Your task to perform on an android device: change the upload size in google photos Image 0: 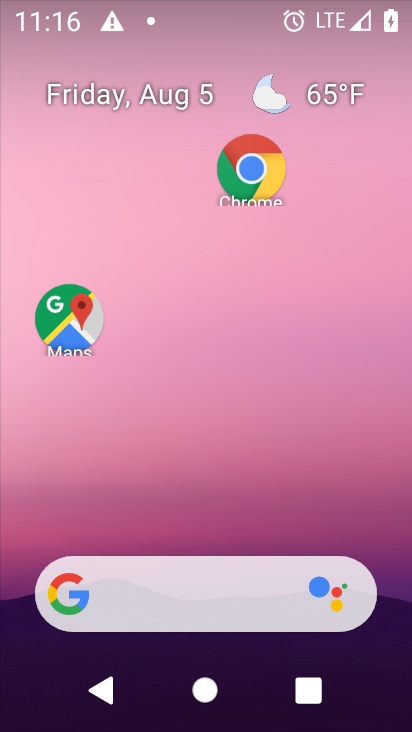
Step 0: drag from (198, 509) to (166, 94)
Your task to perform on an android device: change the upload size in google photos Image 1: 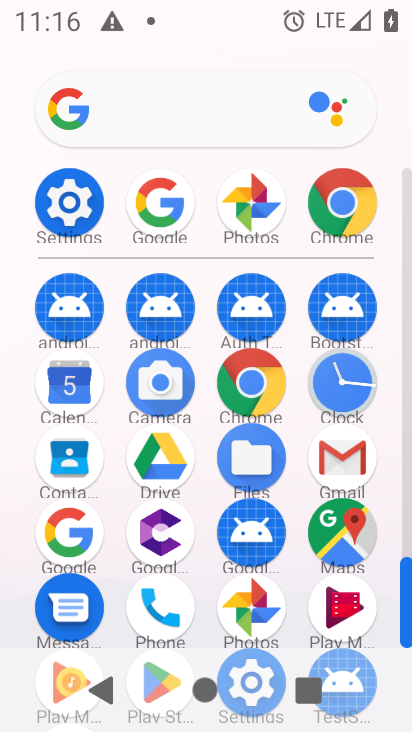
Step 1: click (219, 199)
Your task to perform on an android device: change the upload size in google photos Image 2: 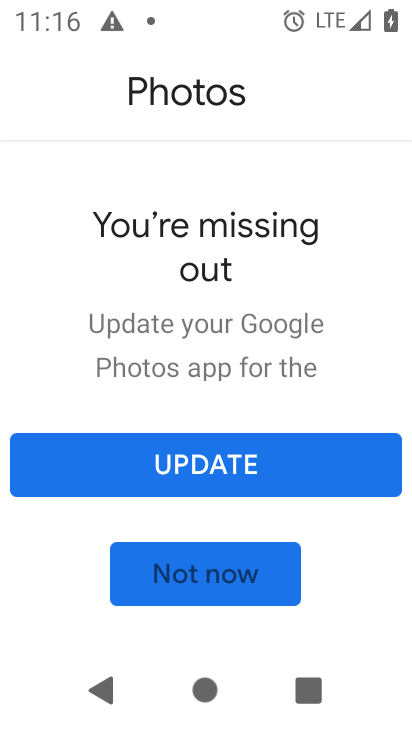
Step 2: click (278, 476)
Your task to perform on an android device: change the upload size in google photos Image 3: 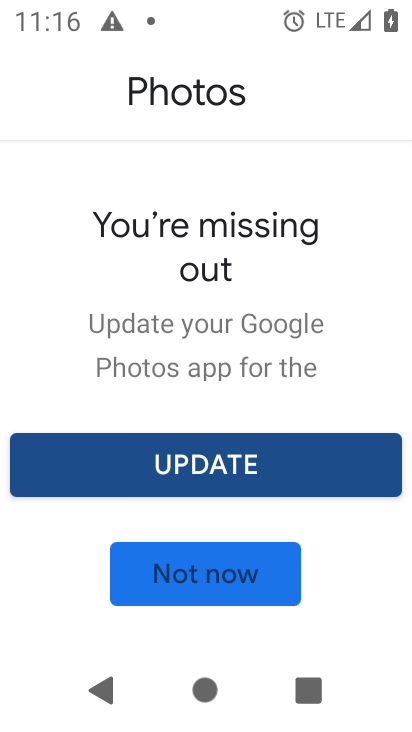
Step 3: click (217, 583)
Your task to perform on an android device: change the upload size in google photos Image 4: 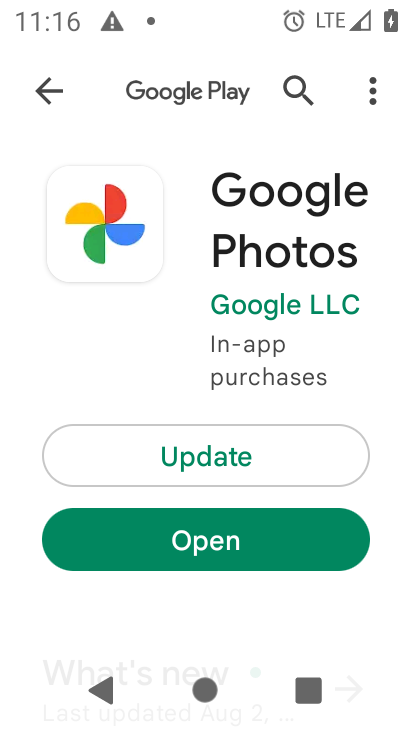
Step 4: click (210, 539)
Your task to perform on an android device: change the upload size in google photos Image 5: 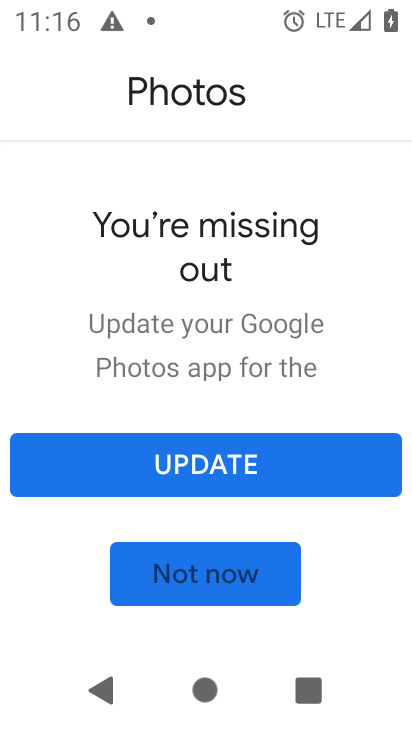
Step 5: drag from (204, 553) to (92, 553)
Your task to perform on an android device: change the upload size in google photos Image 6: 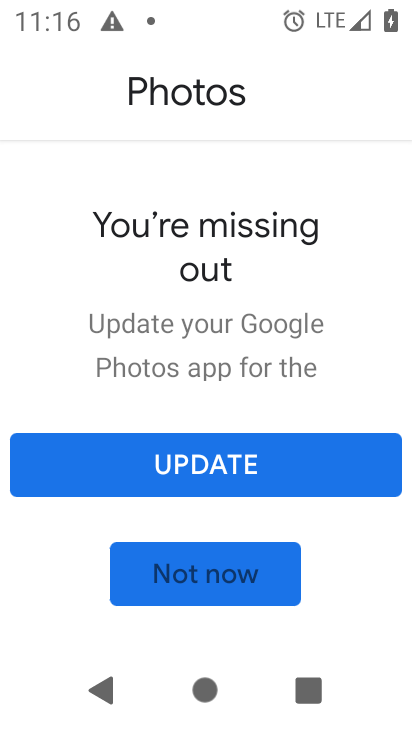
Step 6: click (133, 560)
Your task to perform on an android device: change the upload size in google photos Image 7: 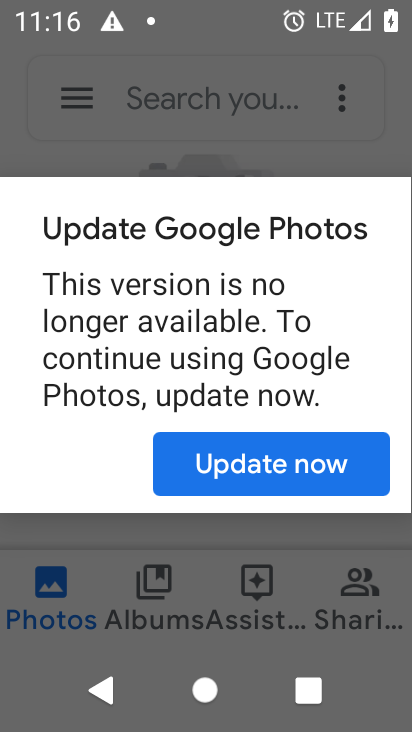
Step 7: click (249, 474)
Your task to perform on an android device: change the upload size in google photos Image 8: 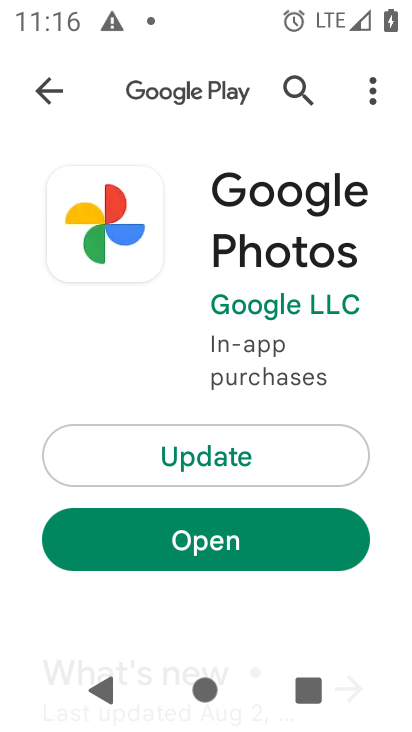
Step 8: click (221, 561)
Your task to perform on an android device: change the upload size in google photos Image 9: 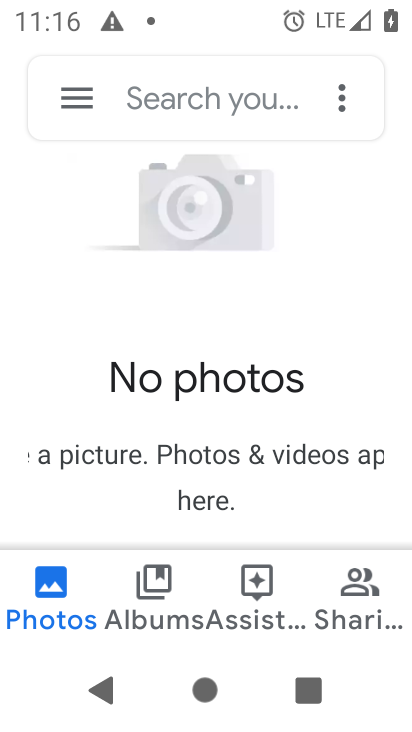
Step 9: click (77, 77)
Your task to perform on an android device: change the upload size in google photos Image 10: 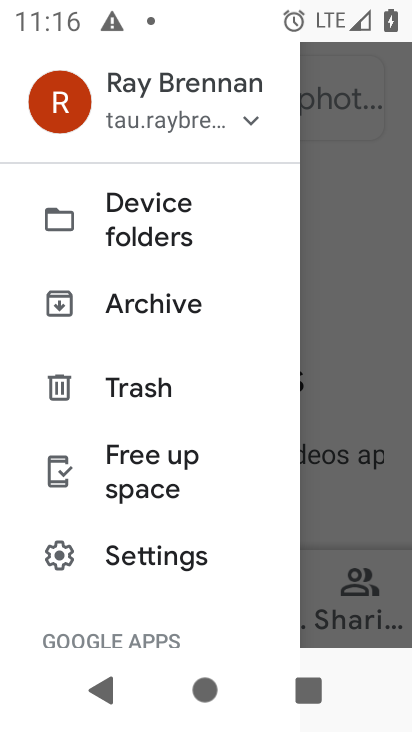
Step 10: click (127, 564)
Your task to perform on an android device: change the upload size in google photos Image 11: 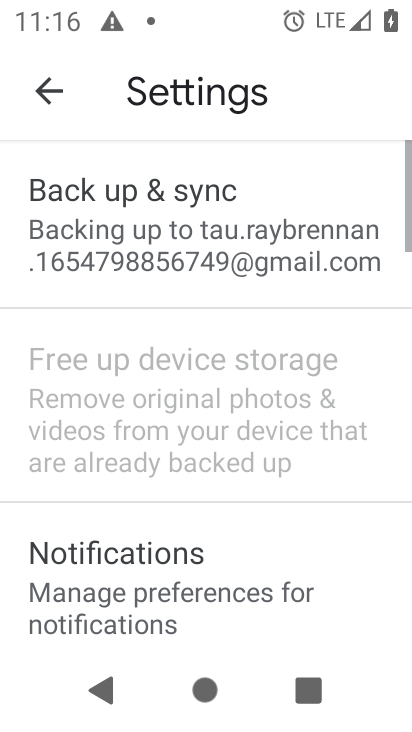
Step 11: click (105, 251)
Your task to perform on an android device: change the upload size in google photos Image 12: 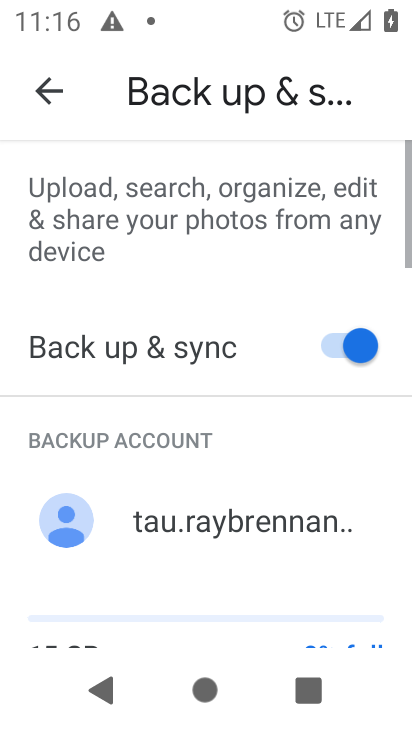
Step 12: drag from (177, 492) to (210, 194)
Your task to perform on an android device: change the upload size in google photos Image 13: 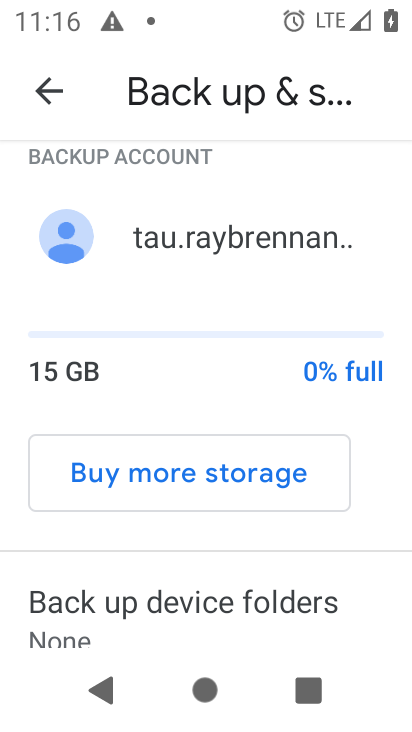
Step 13: drag from (206, 580) to (180, 252)
Your task to perform on an android device: change the upload size in google photos Image 14: 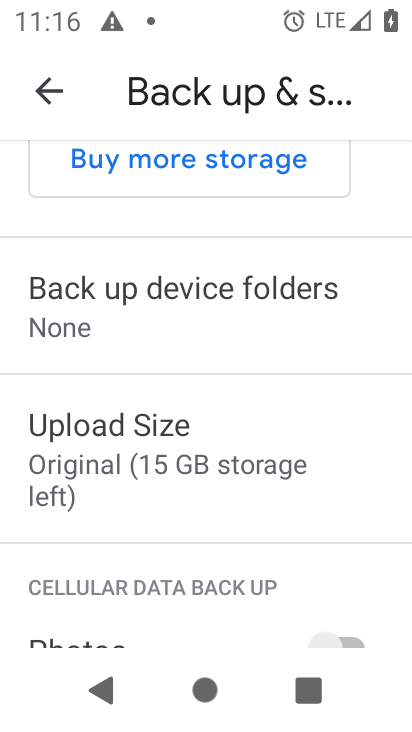
Step 14: click (180, 441)
Your task to perform on an android device: change the upload size in google photos Image 15: 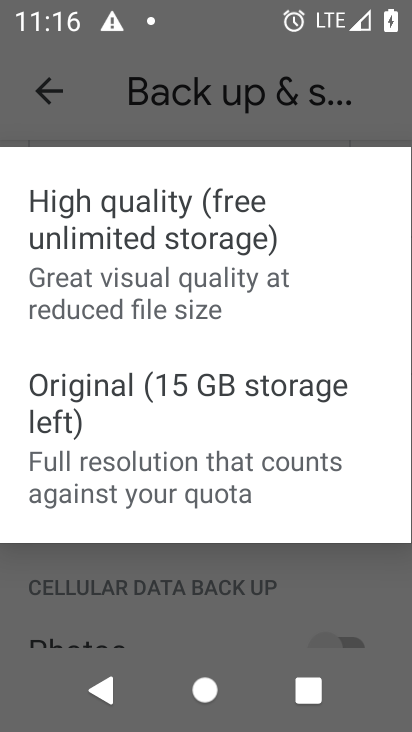
Step 15: click (179, 243)
Your task to perform on an android device: change the upload size in google photos Image 16: 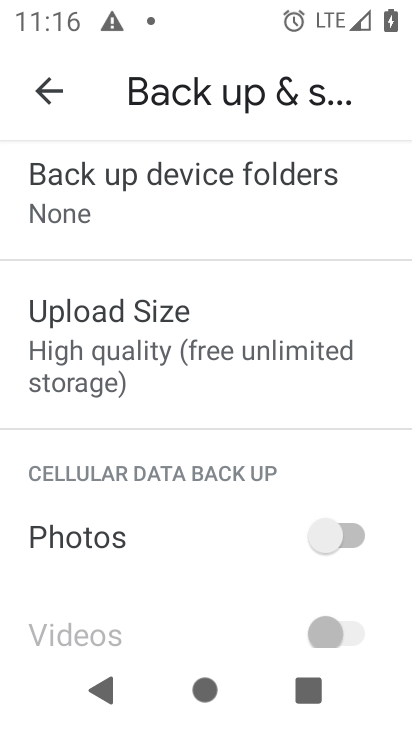
Step 16: task complete